Your task to perform on an android device: Search for a coffee table on Crate & Barrel Image 0: 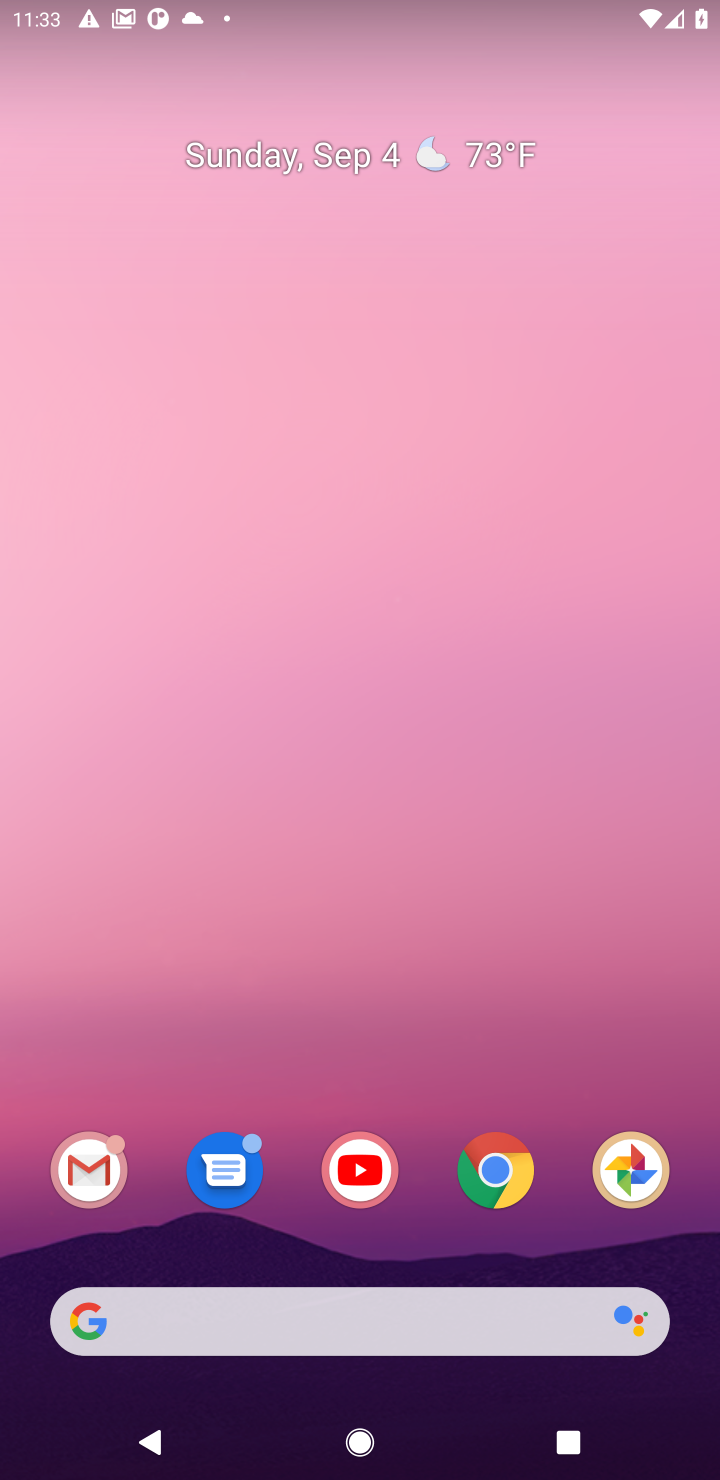
Step 0: click (224, 47)
Your task to perform on an android device: Search for a coffee table on Crate & Barrel Image 1: 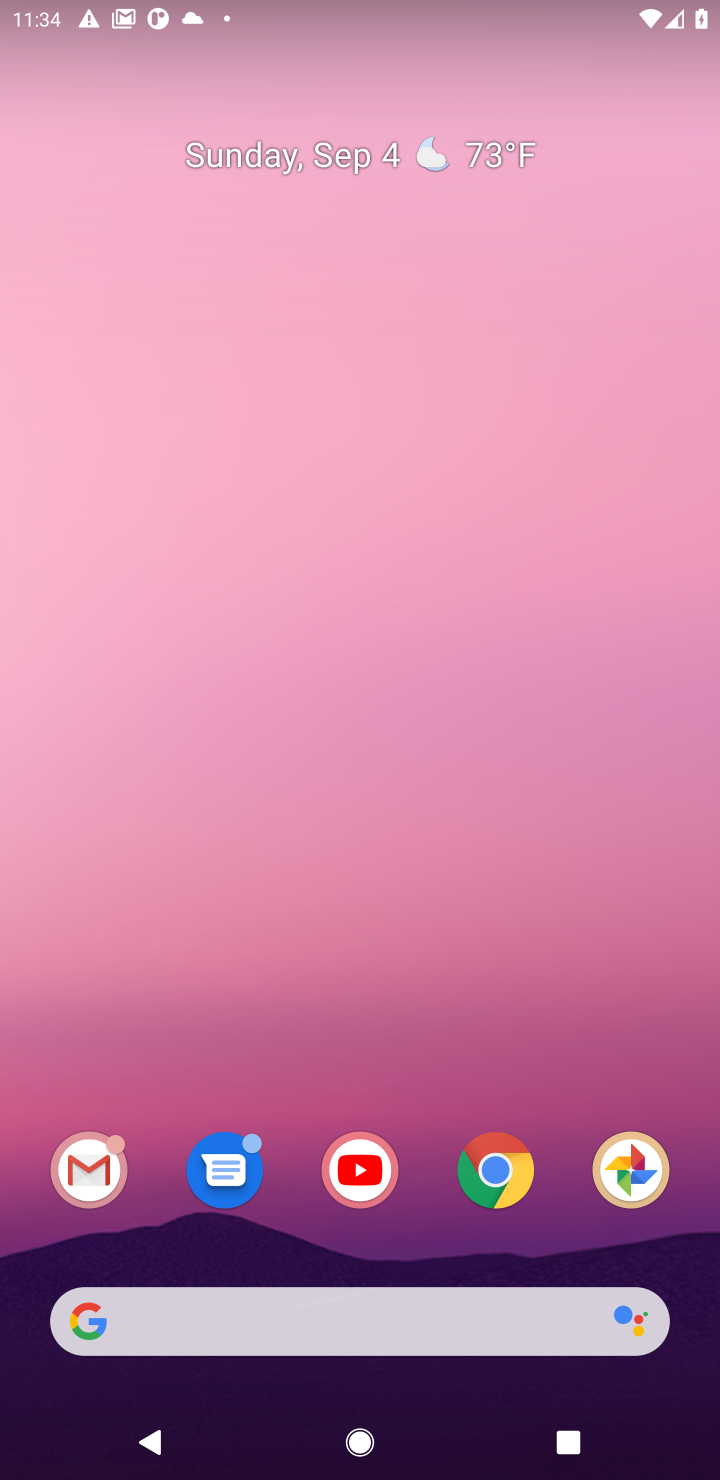
Step 1: drag from (313, 60) to (708, 511)
Your task to perform on an android device: Search for a coffee table on Crate & Barrel Image 2: 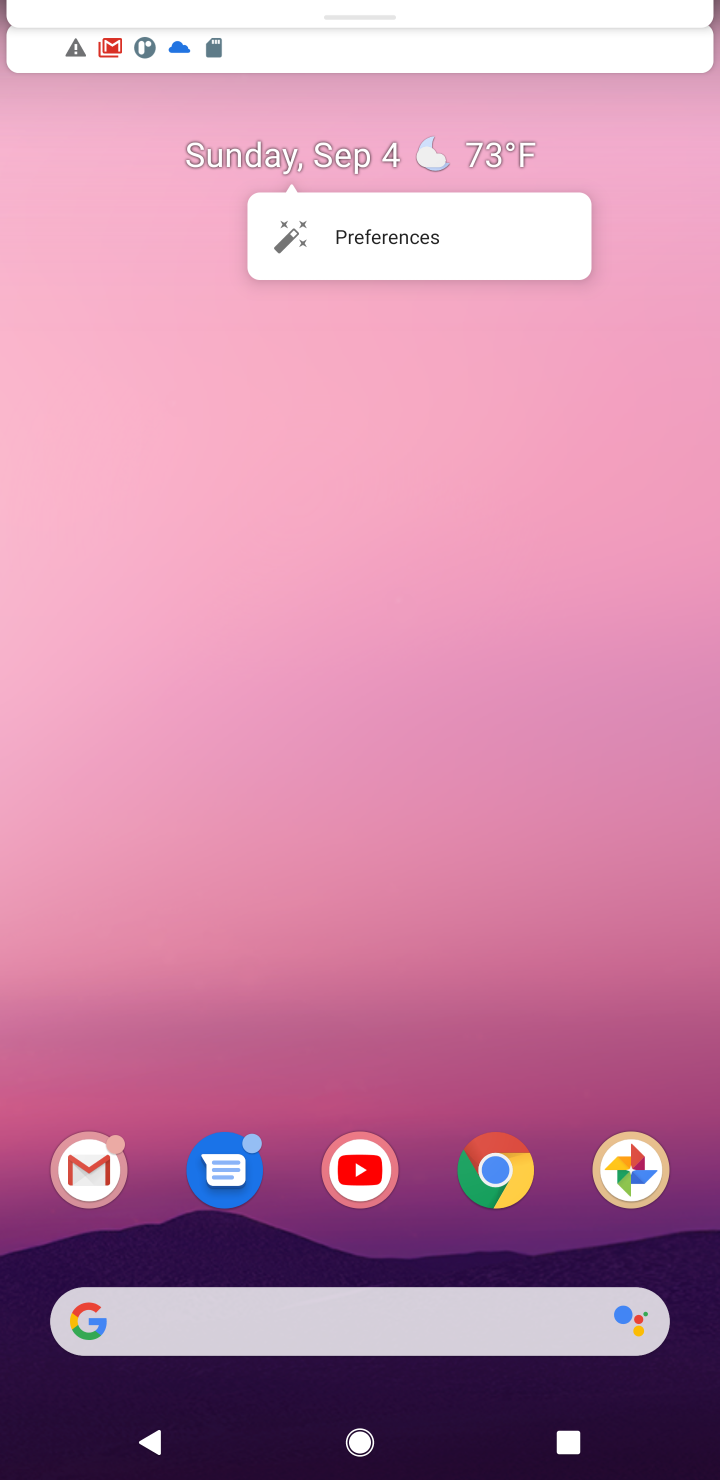
Step 2: drag from (315, 627) to (310, 67)
Your task to perform on an android device: Search for a coffee table on Crate & Barrel Image 3: 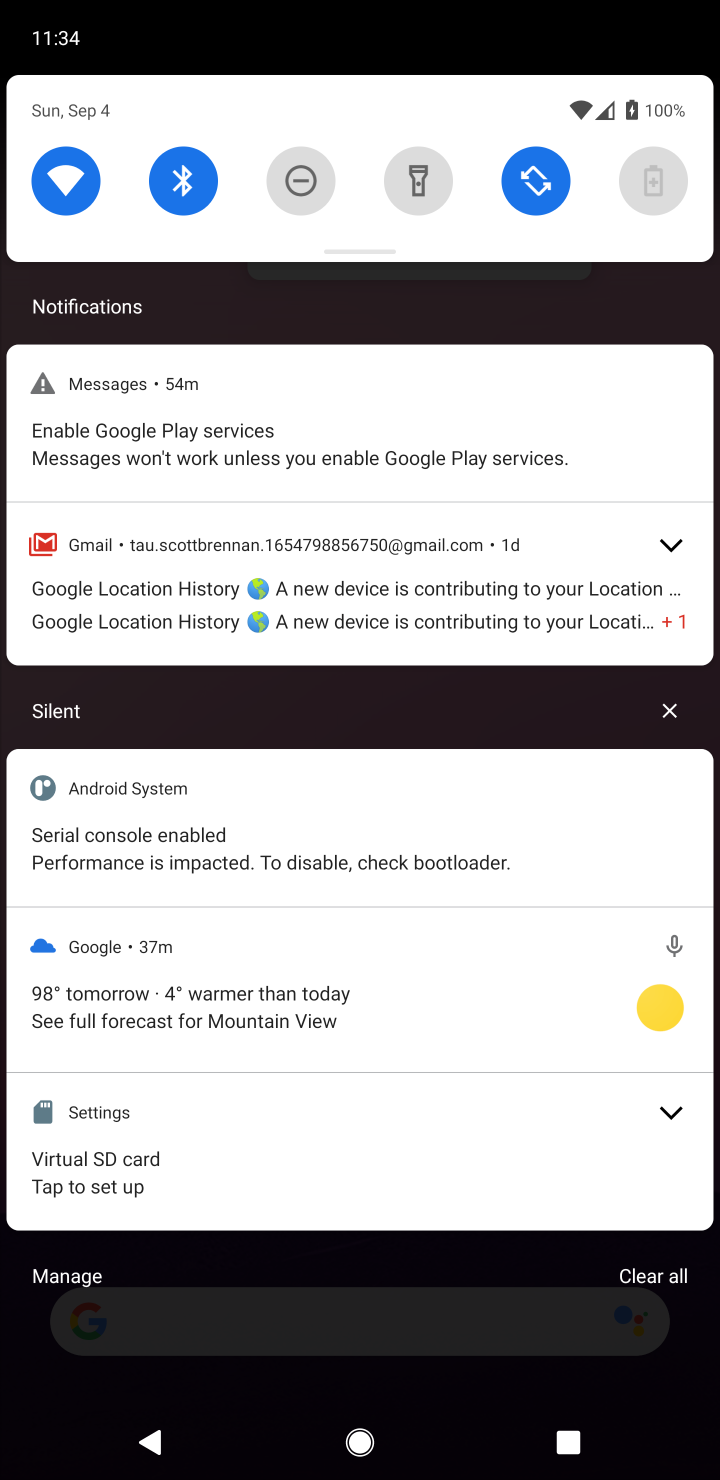
Step 3: click (676, 1285)
Your task to perform on an android device: Search for a coffee table on Crate & Barrel Image 4: 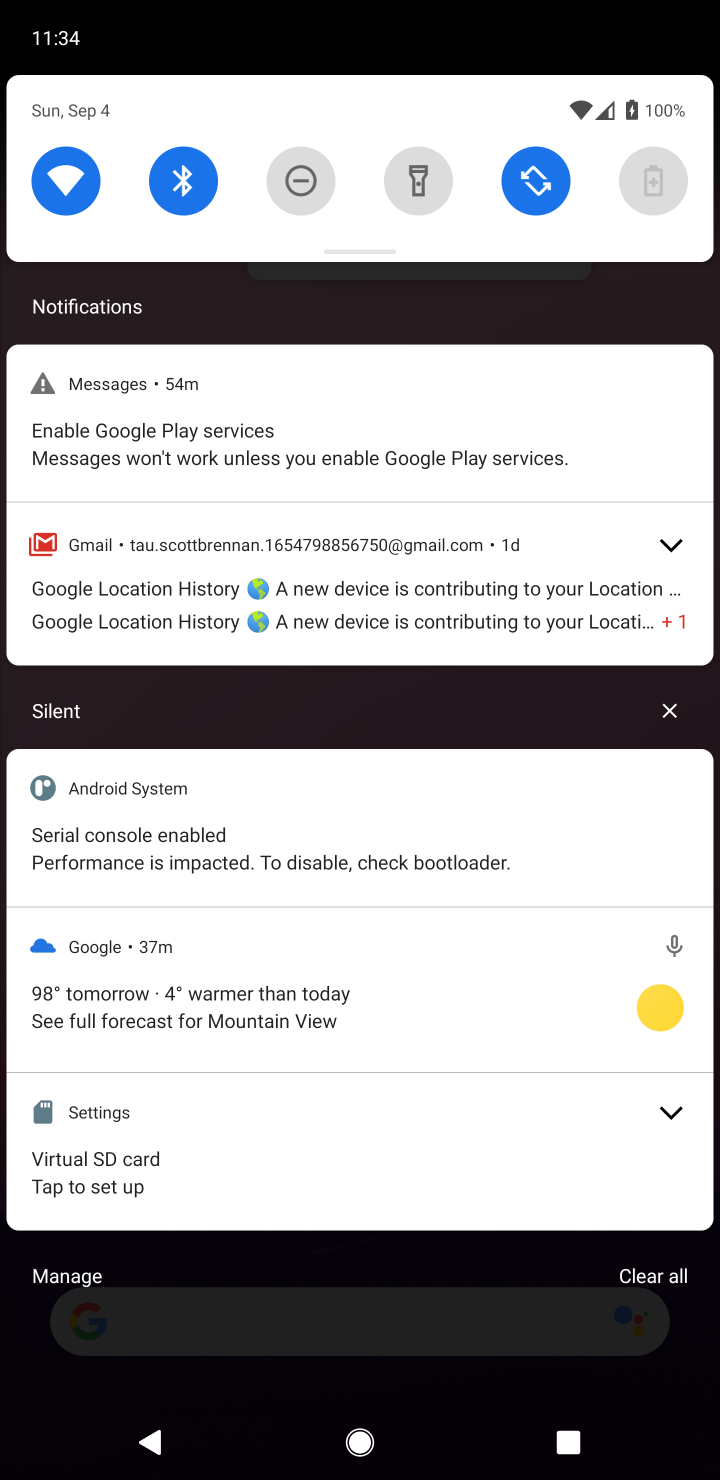
Step 4: click (665, 1278)
Your task to perform on an android device: Search for a coffee table on Crate & Barrel Image 5: 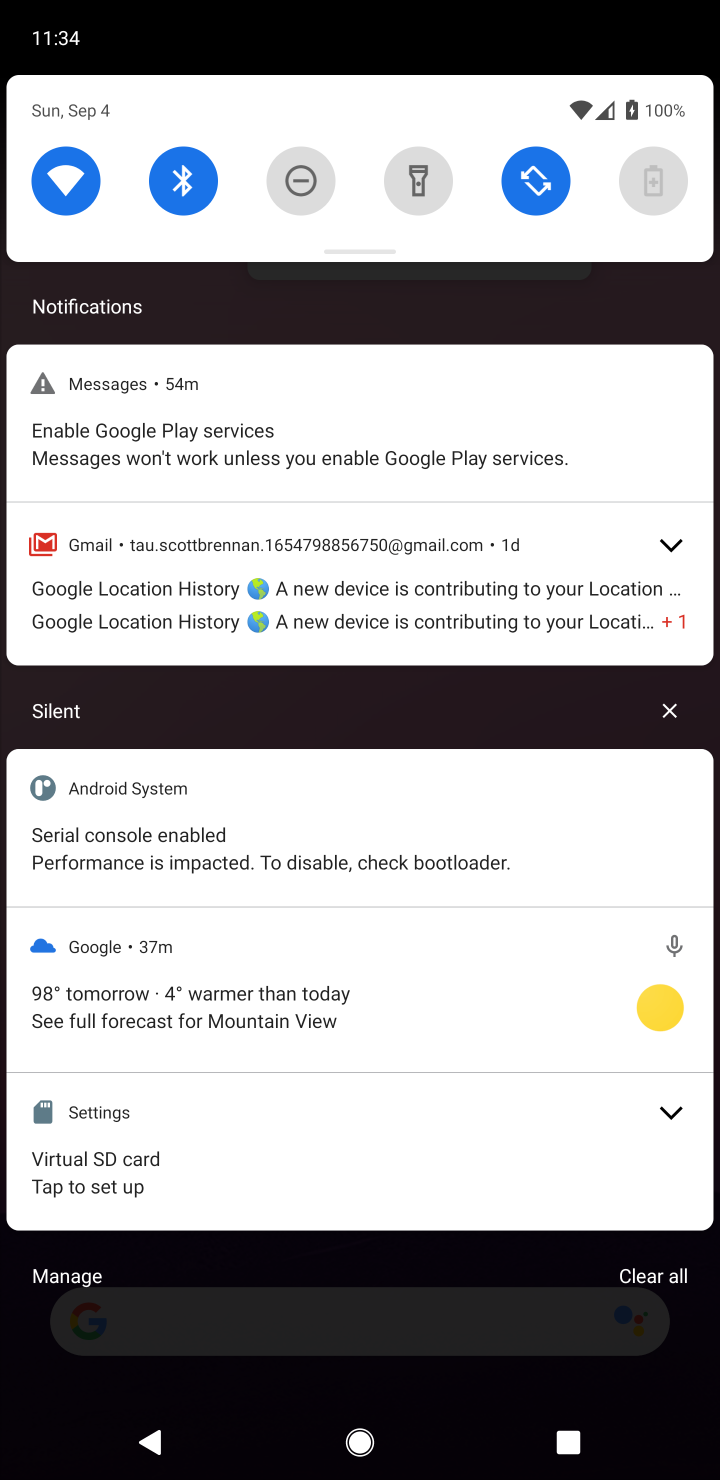
Step 5: click (682, 1273)
Your task to perform on an android device: Search for a coffee table on Crate & Barrel Image 6: 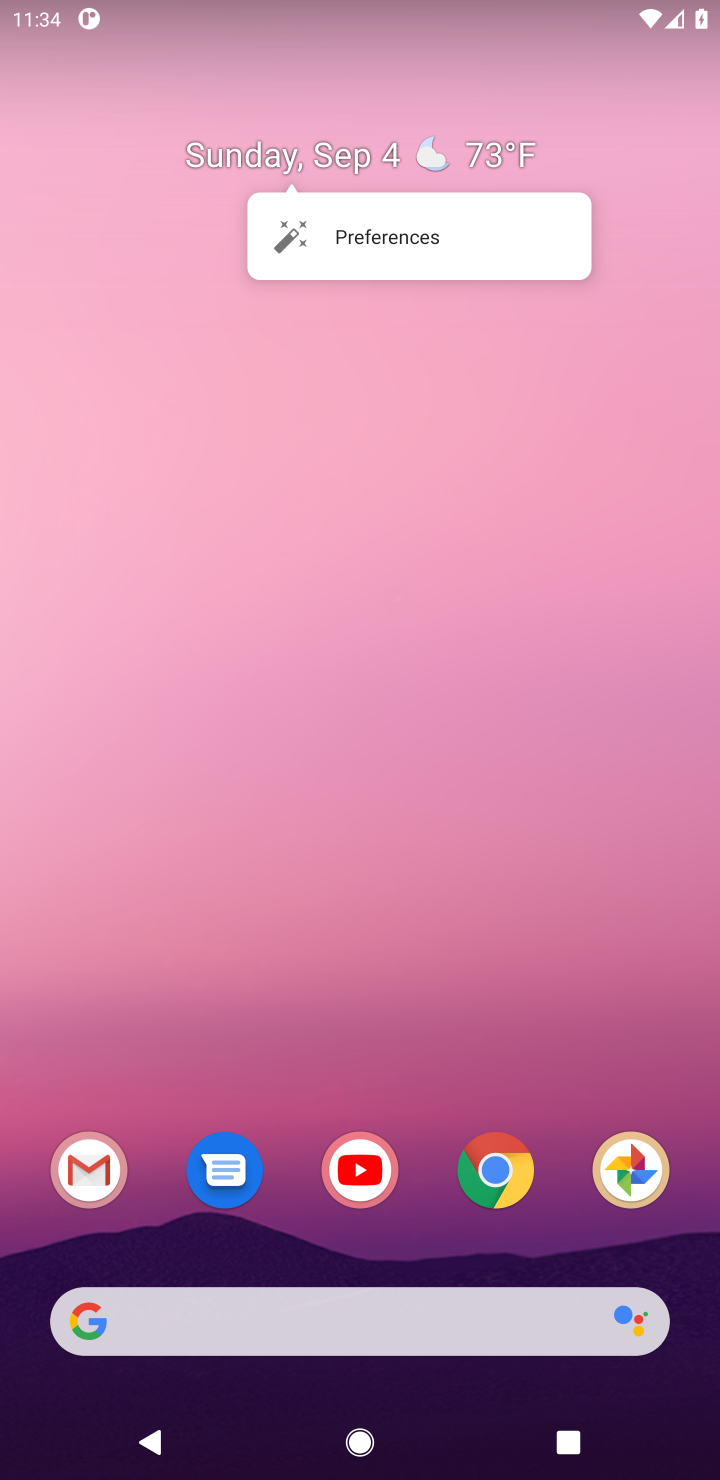
Step 6: drag from (177, 8) to (312, 15)
Your task to perform on an android device: Search for a coffee table on Crate & Barrel Image 7: 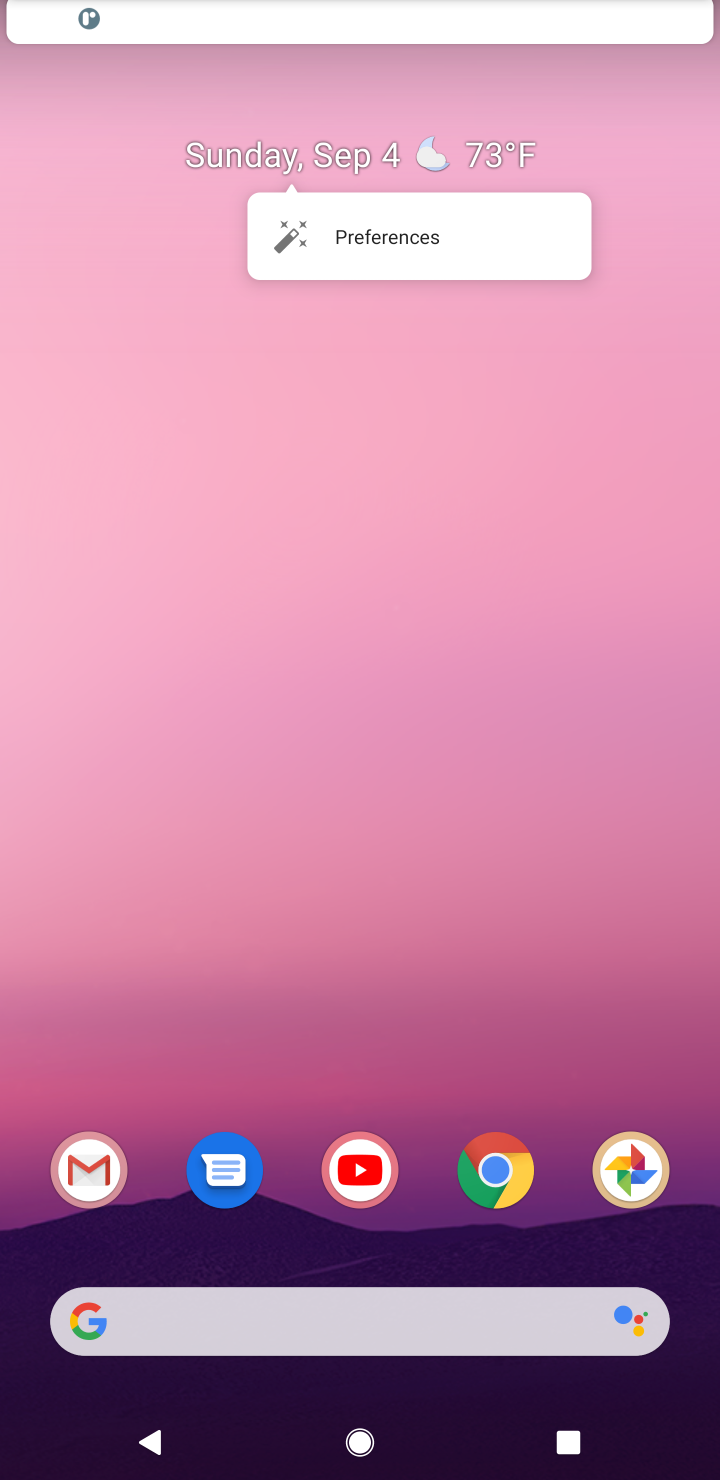
Step 7: click (417, 983)
Your task to perform on an android device: Search for a coffee table on Crate & Barrel Image 8: 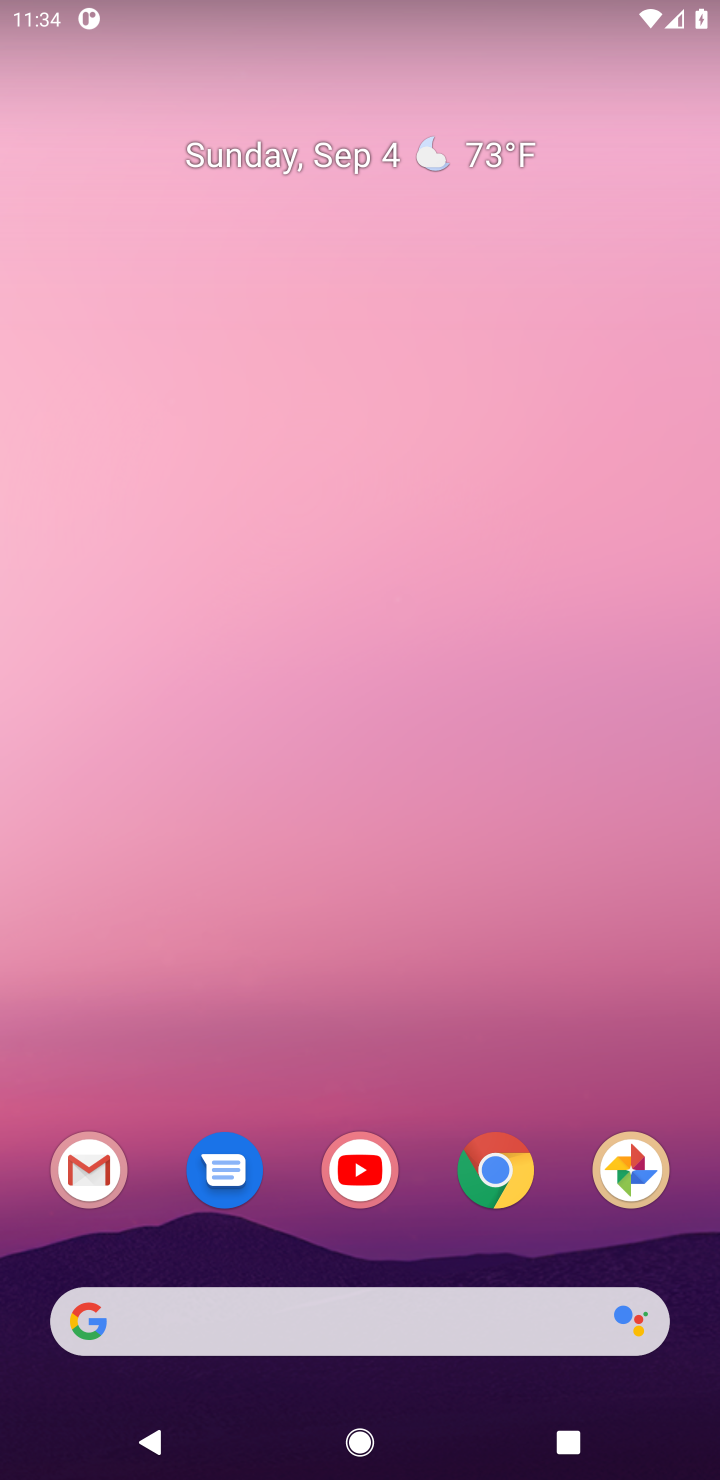
Step 8: drag from (394, 1284) to (718, 134)
Your task to perform on an android device: Search for a coffee table on Crate & Barrel Image 9: 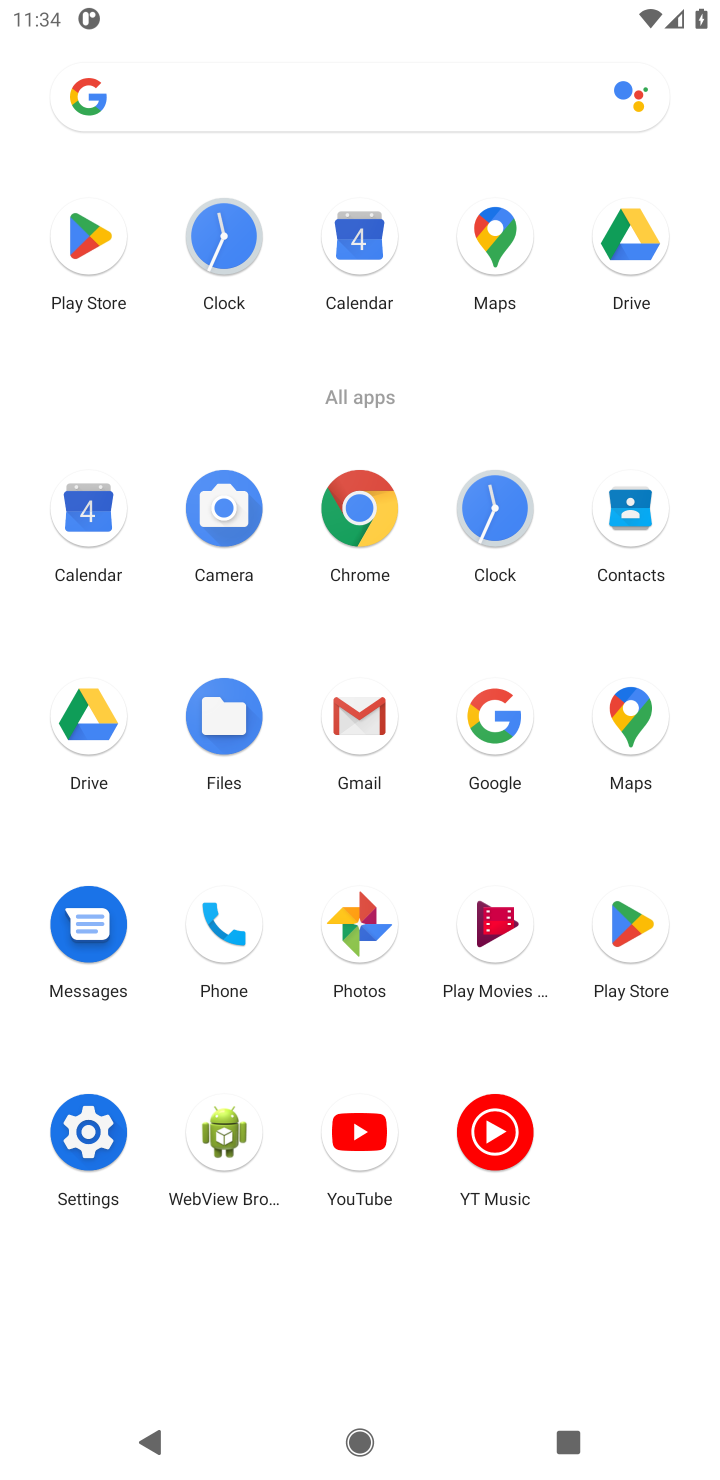
Step 9: click (367, 533)
Your task to perform on an android device: Search for a coffee table on Crate & Barrel Image 10: 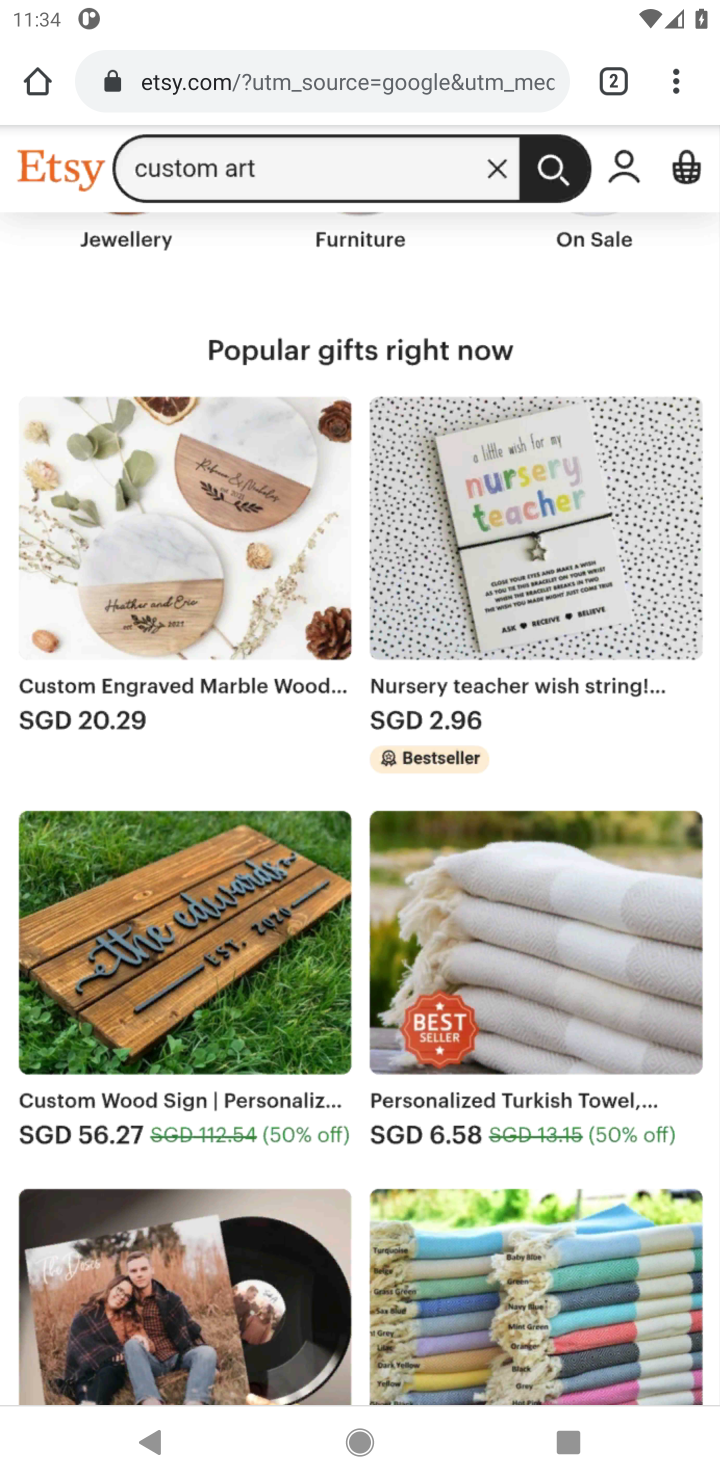
Step 10: click (496, 166)
Your task to perform on an android device: Search for a coffee table on Crate & Barrel Image 11: 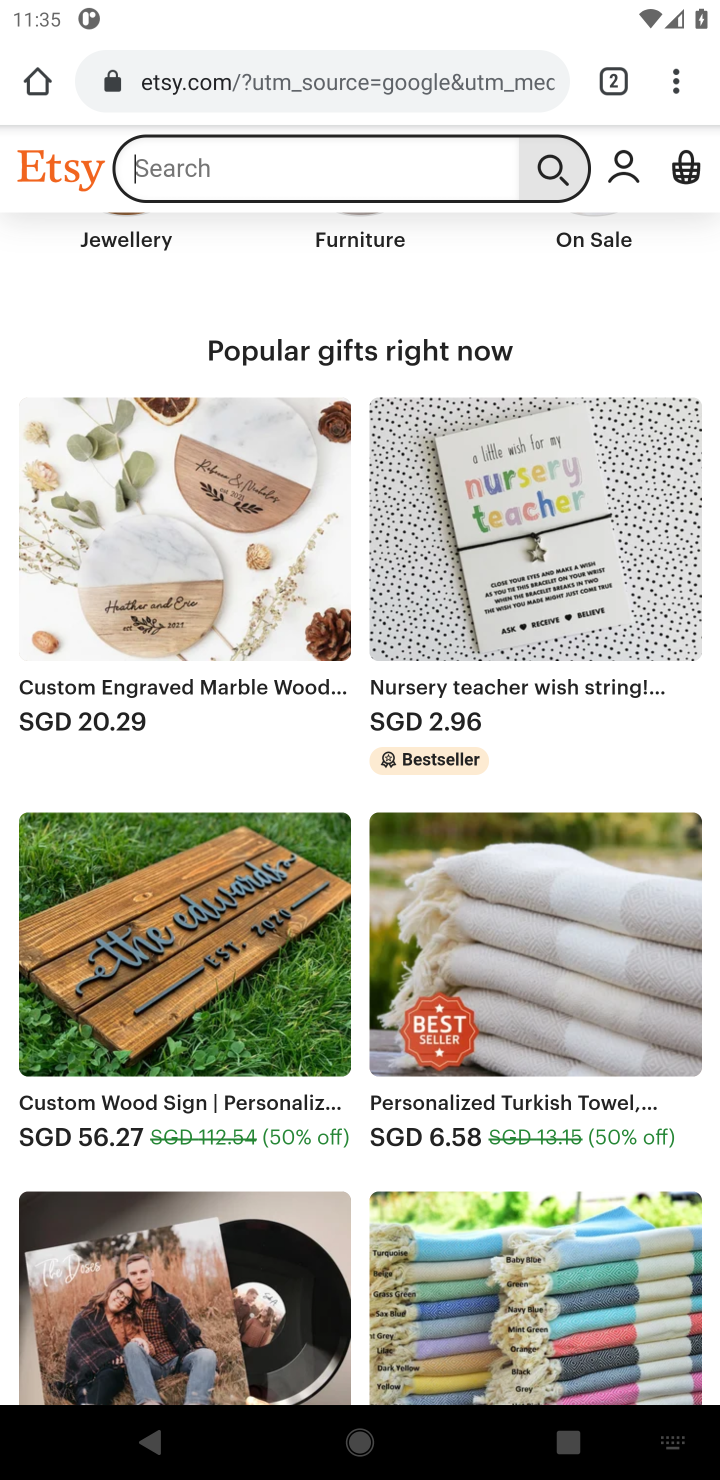
Step 11: press home button
Your task to perform on an android device: Search for a coffee table on Crate & Barrel Image 12: 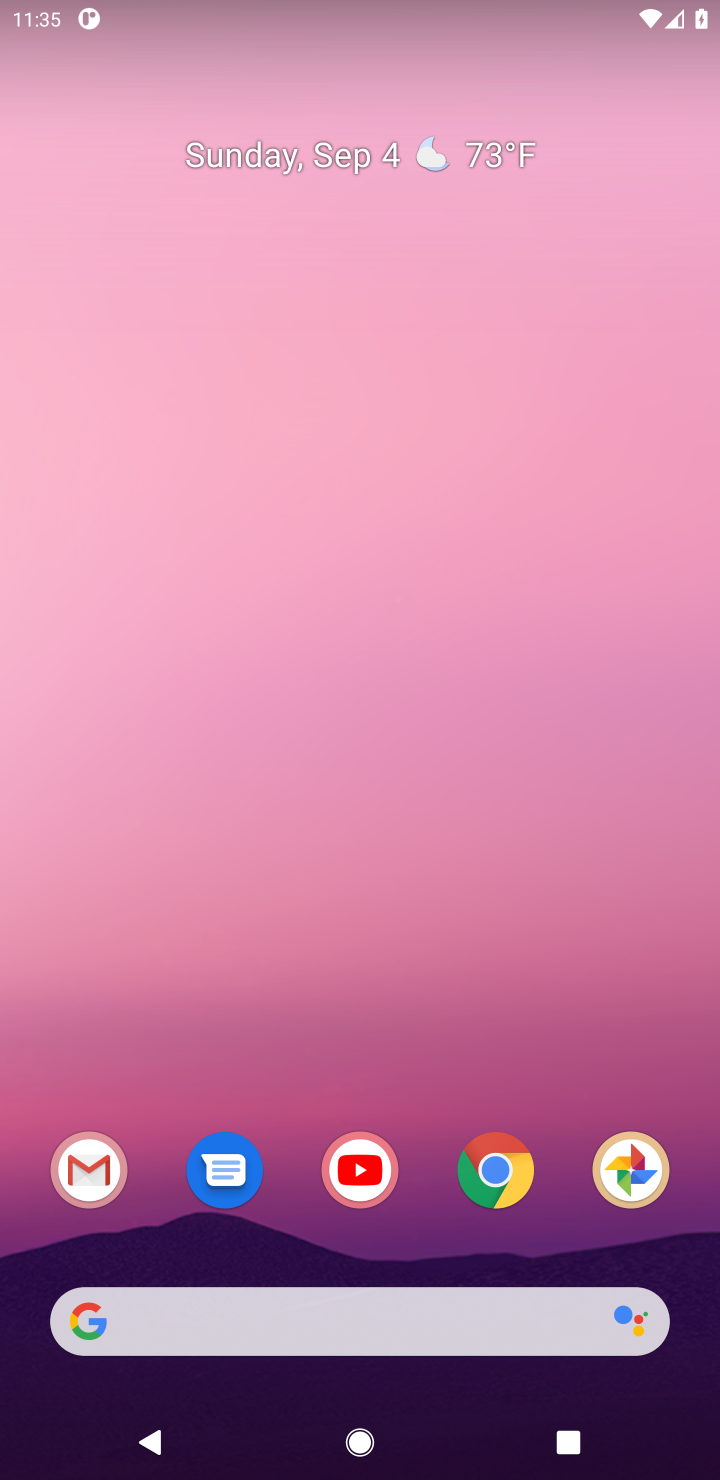
Step 12: drag from (351, 1227) to (651, 114)
Your task to perform on an android device: Search for a coffee table on Crate & Barrel Image 13: 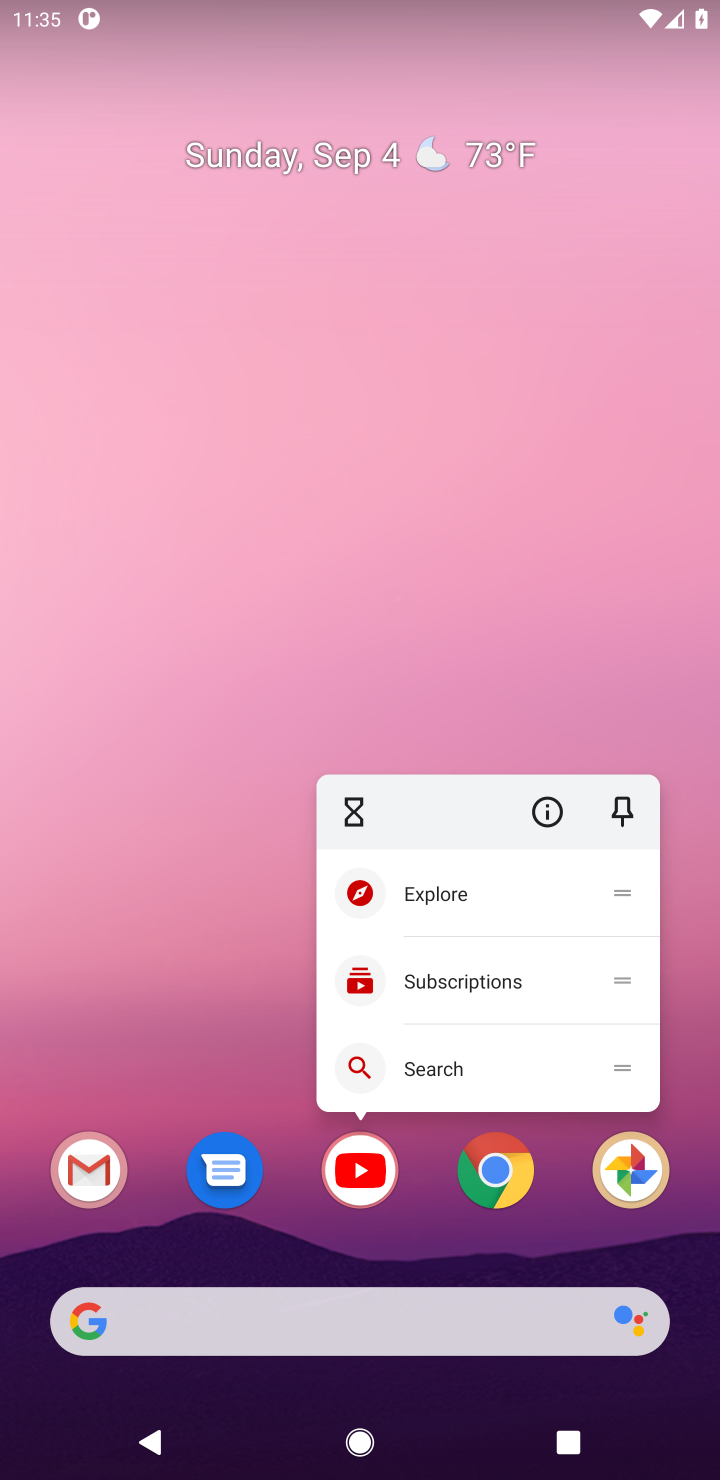
Step 13: click (412, 1299)
Your task to perform on an android device: Search for a coffee table on Crate & Barrel Image 14: 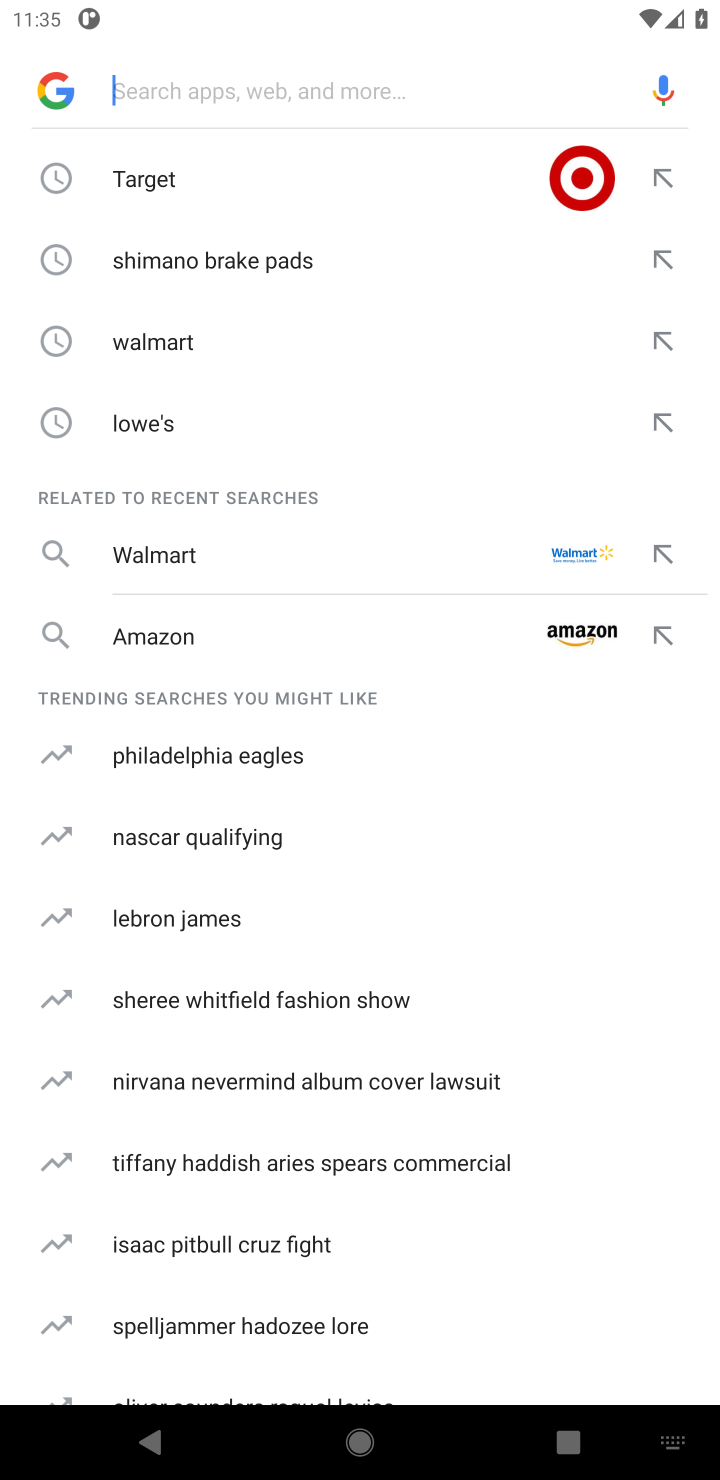
Step 14: type "Crate & Barrel"
Your task to perform on an android device: Search for a coffee table on Crate & Barrel Image 15: 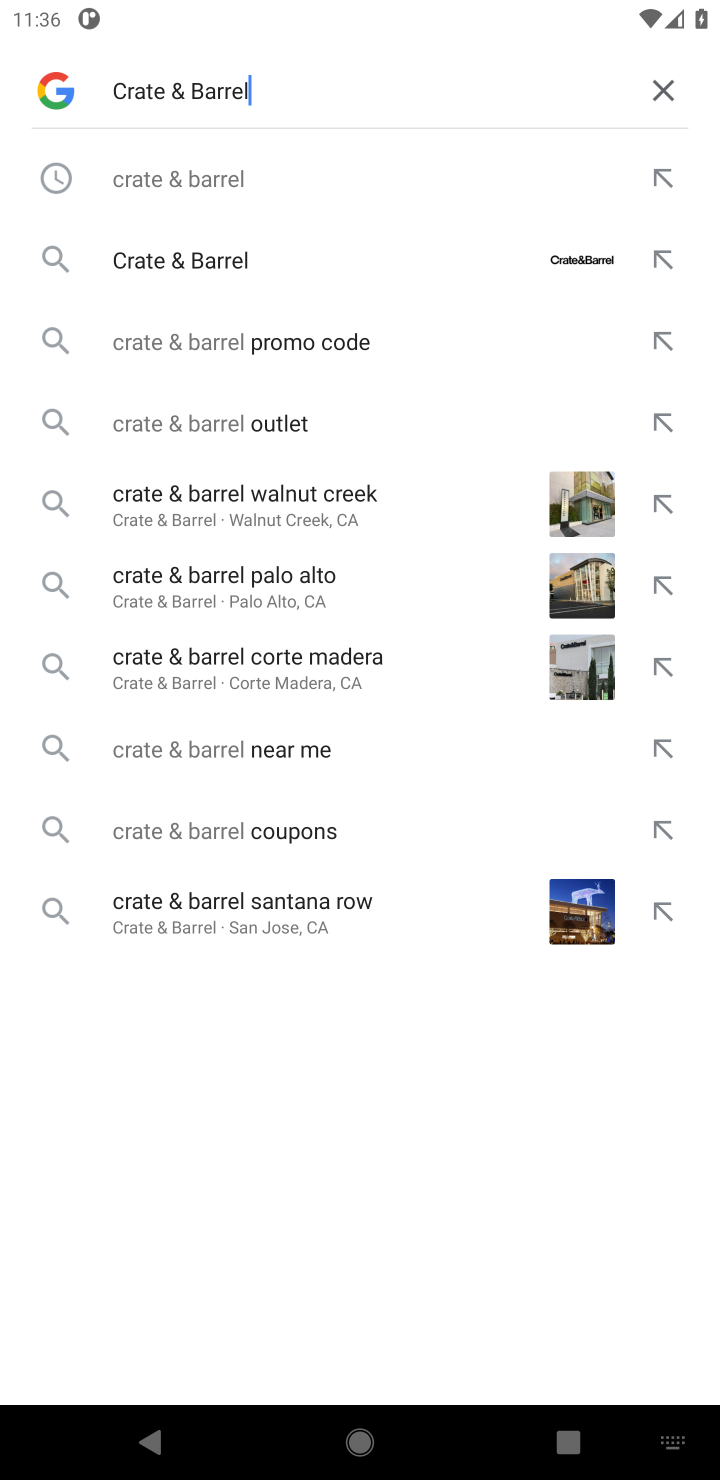
Step 15: type ""
Your task to perform on an android device: Search for a coffee table on Crate & Barrel Image 16: 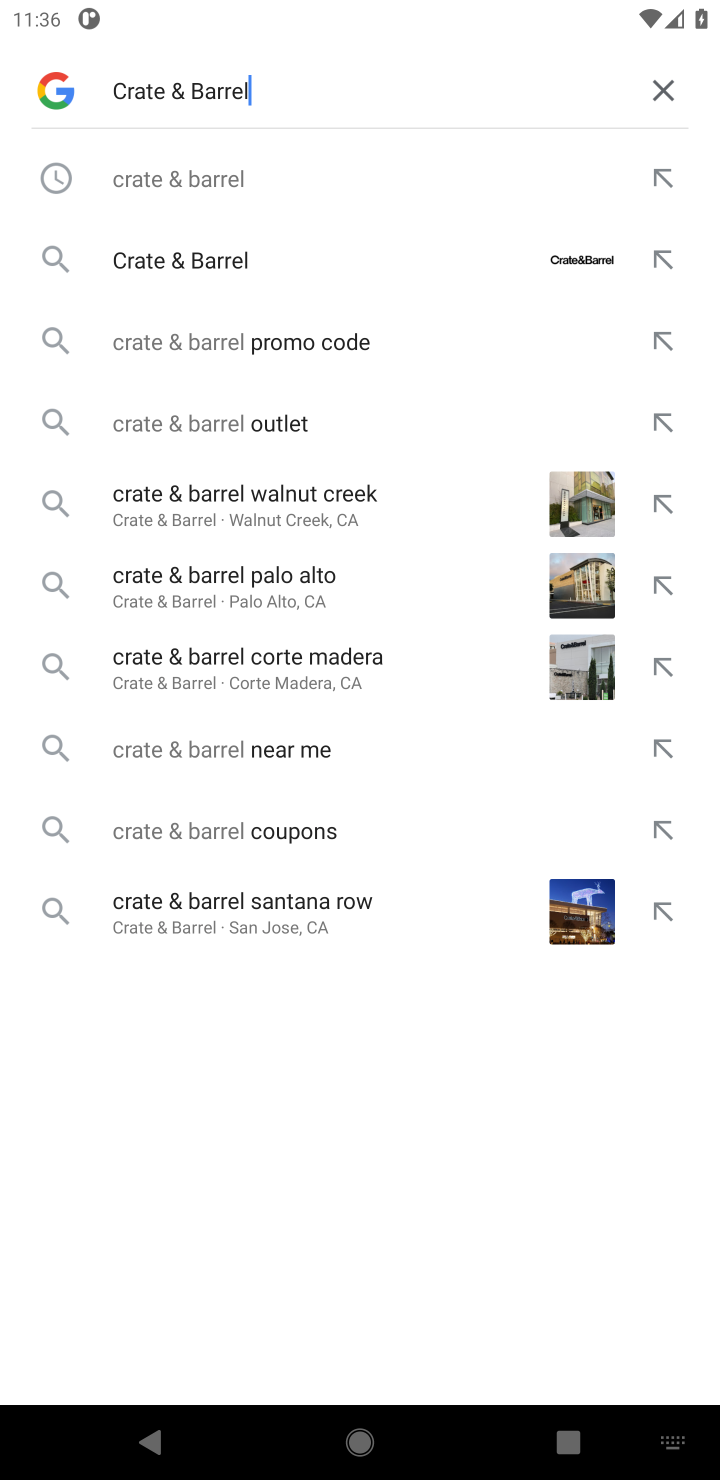
Step 16: click (203, 172)
Your task to perform on an android device: Search for a coffee table on Crate & Barrel Image 17: 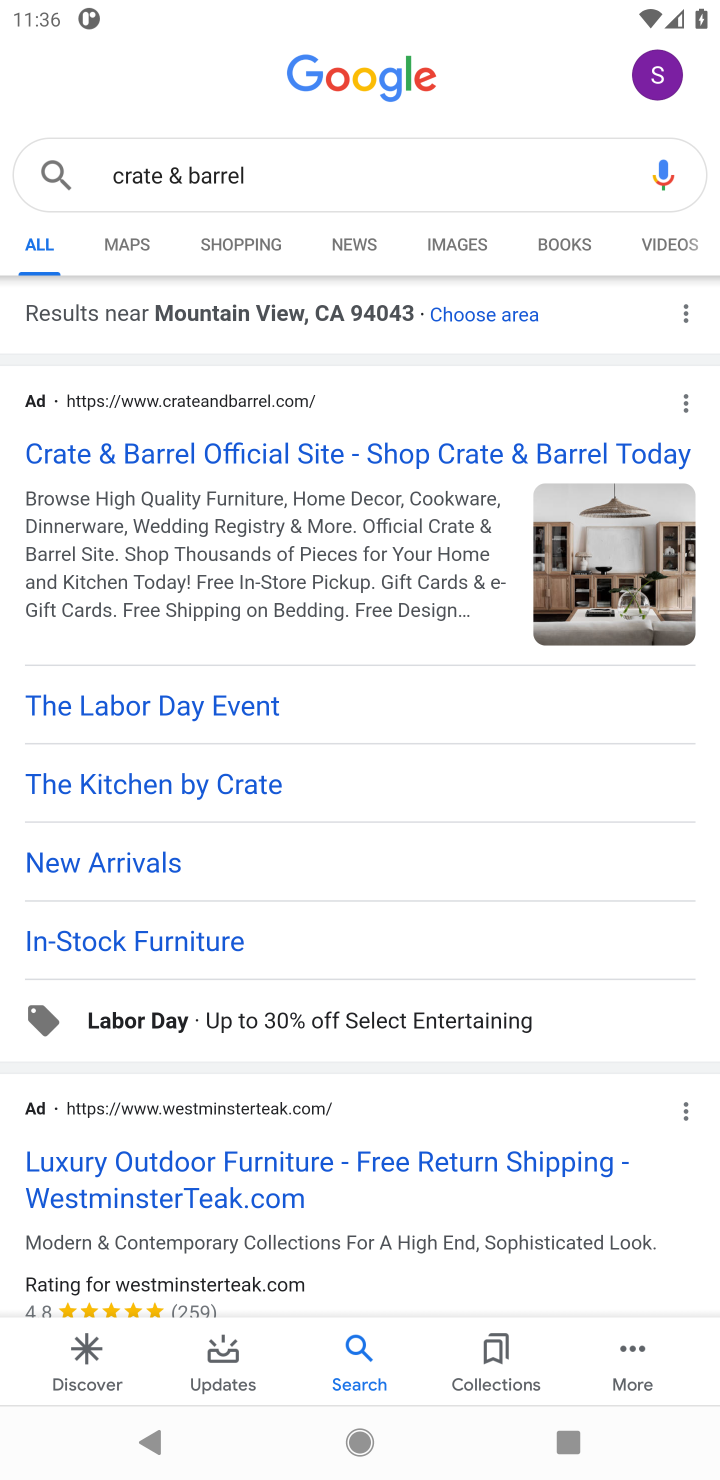
Step 17: click (220, 447)
Your task to perform on an android device: Search for a coffee table on Crate & Barrel Image 18: 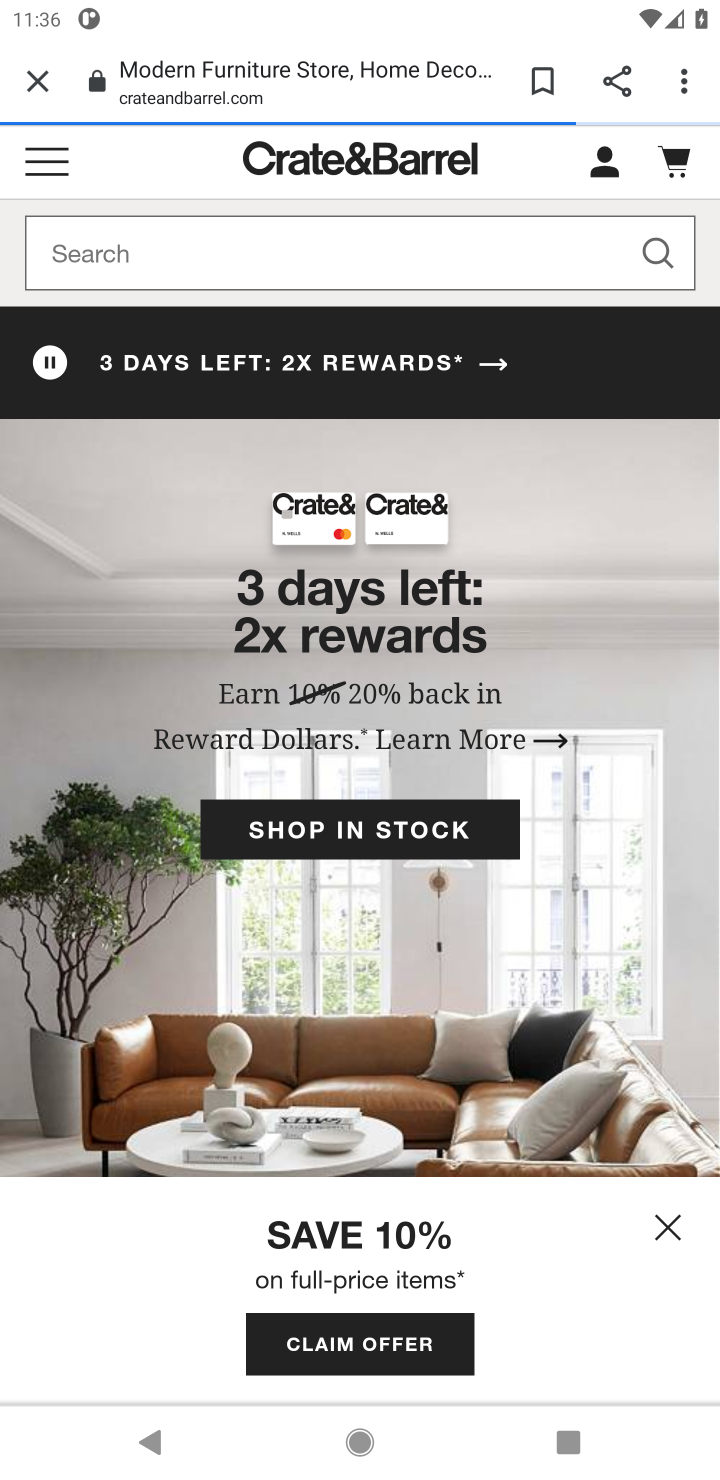
Step 18: click (284, 285)
Your task to perform on an android device: Search for a coffee table on Crate & Barrel Image 19: 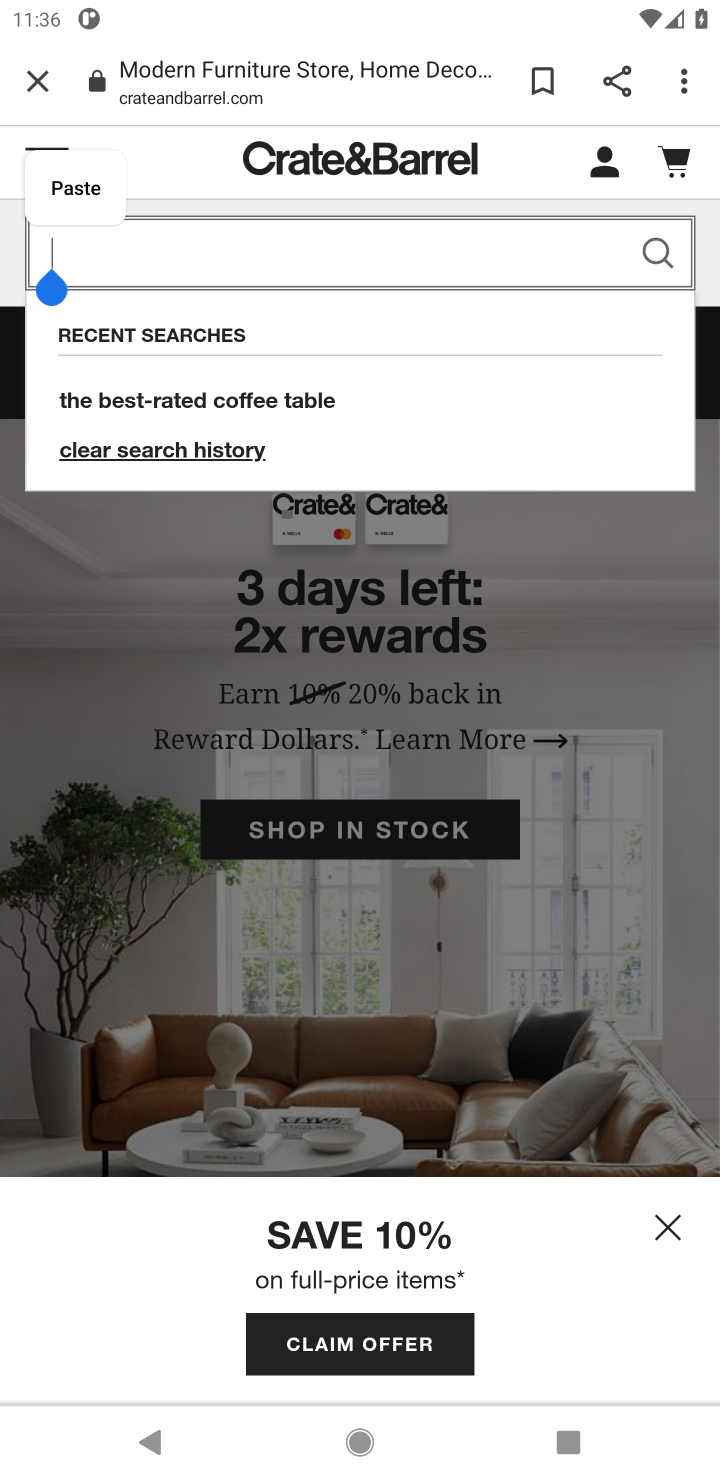
Step 19: type "coffee table"
Your task to perform on an android device: Search for a coffee table on Crate & Barrel Image 20: 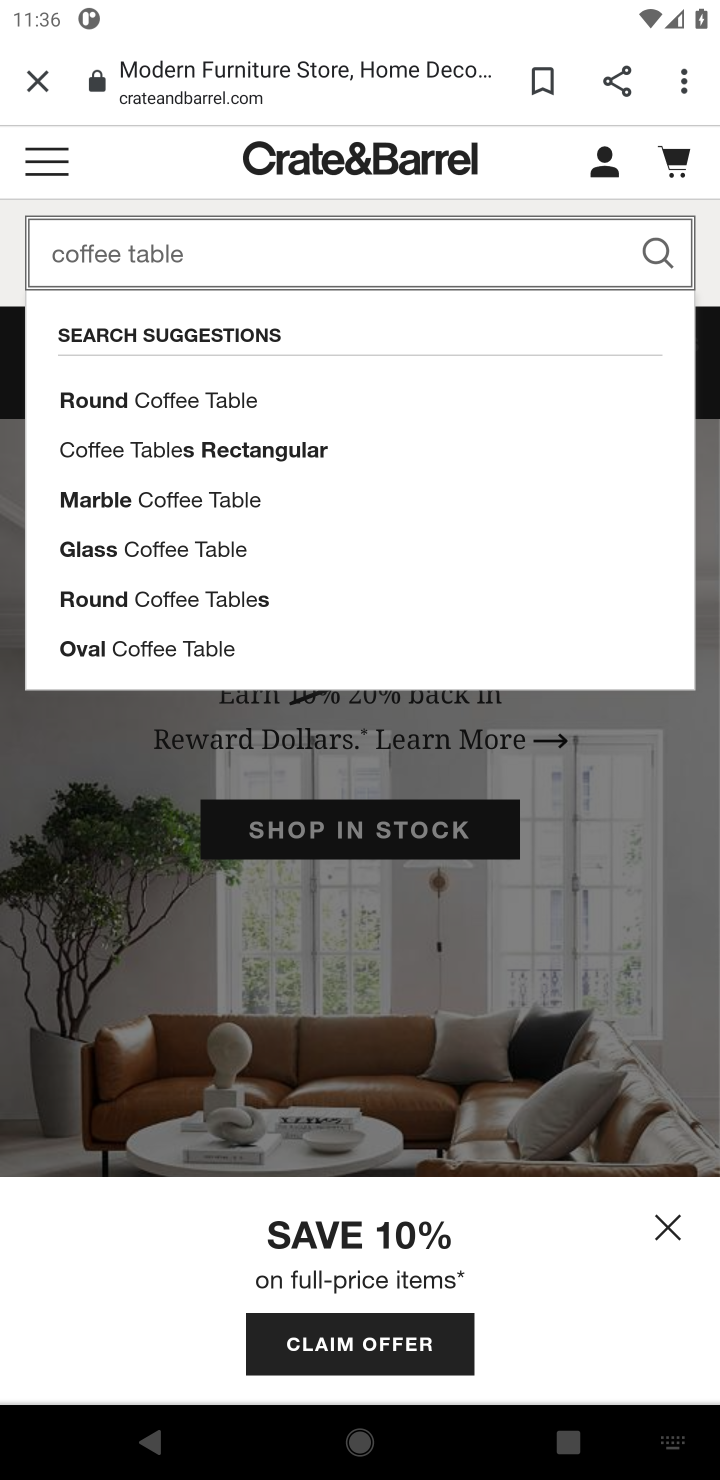
Step 20: click (652, 260)
Your task to perform on an android device: Search for a coffee table on Crate & Barrel Image 21: 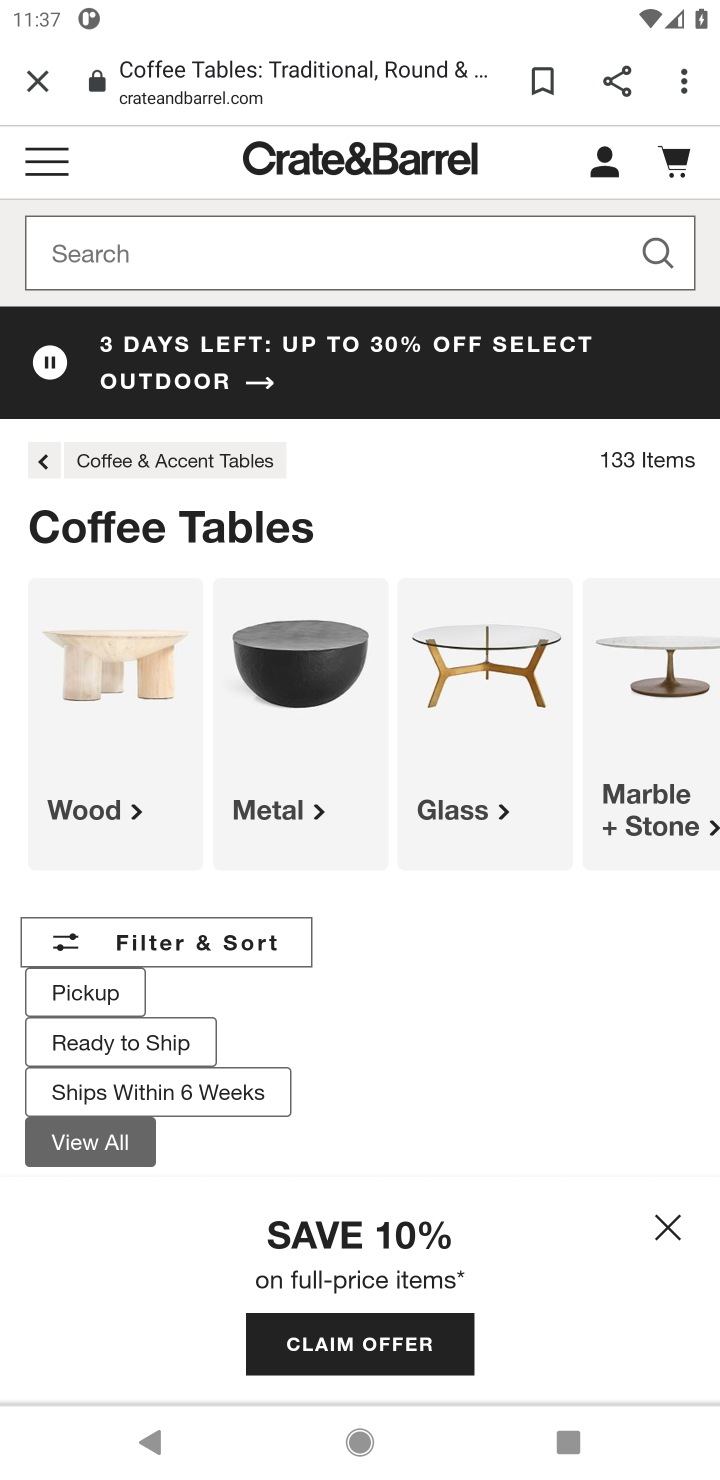
Step 21: click (319, 255)
Your task to perform on an android device: Search for a coffee table on Crate & Barrel Image 22: 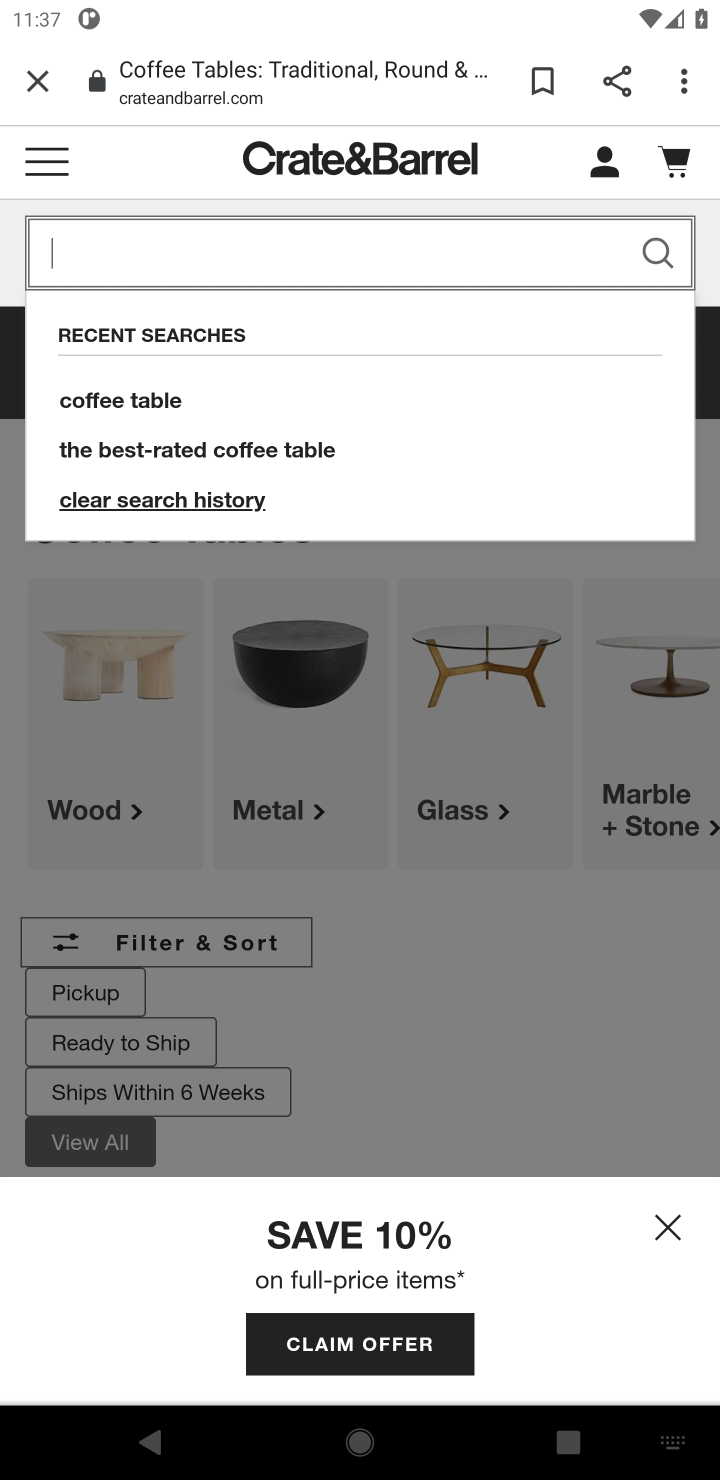
Step 22: click (90, 406)
Your task to perform on an android device: Search for a coffee table on Crate & Barrel Image 23: 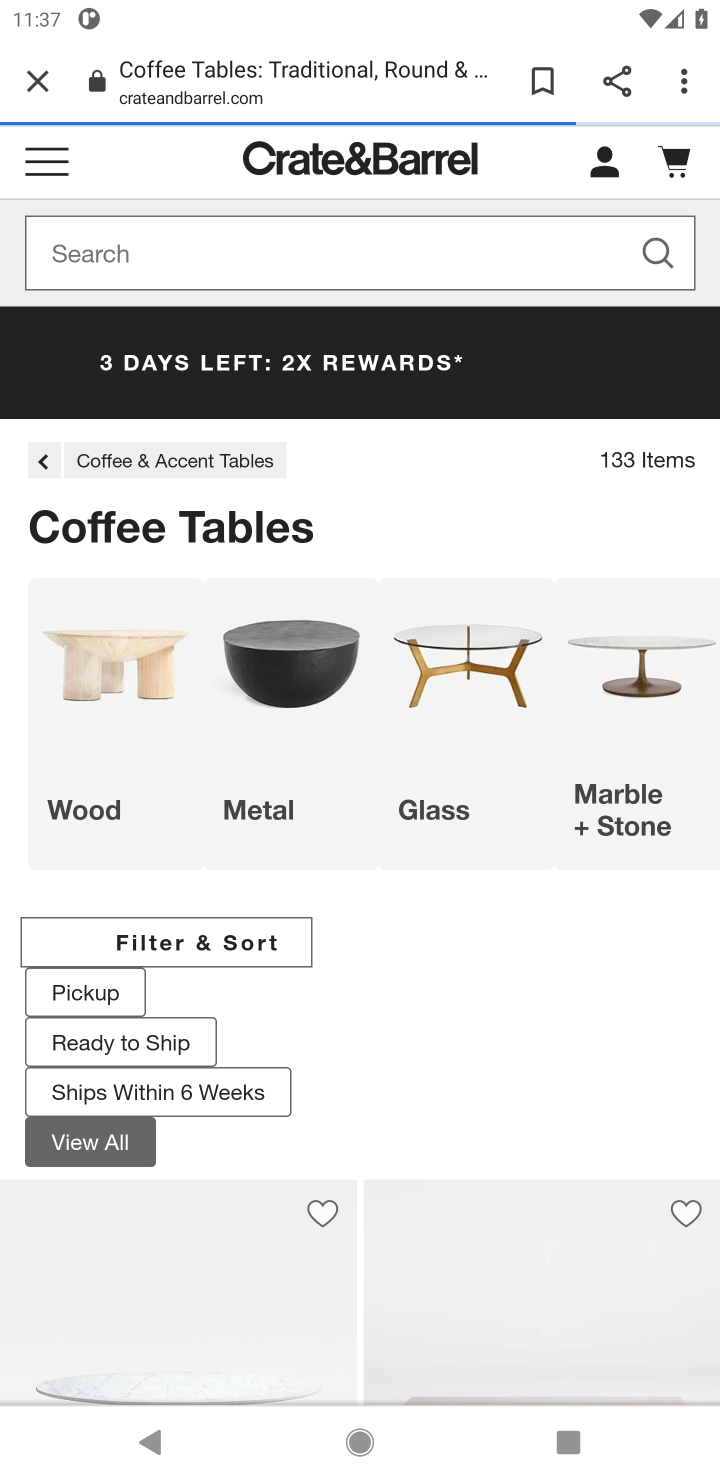
Step 23: task complete